Your task to perform on an android device: check android version Image 0: 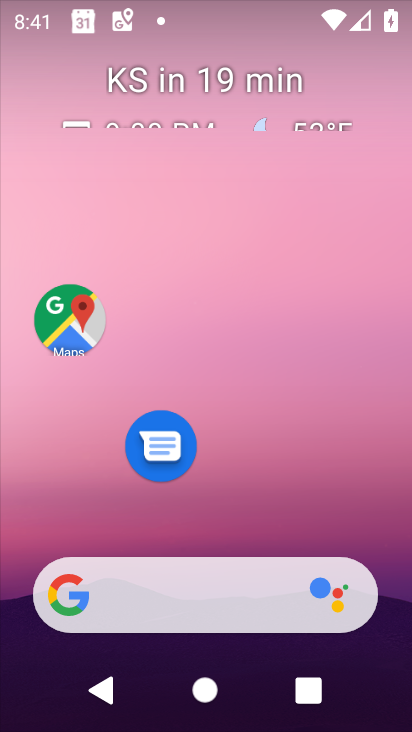
Step 0: drag from (219, 558) to (259, 6)
Your task to perform on an android device: check android version Image 1: 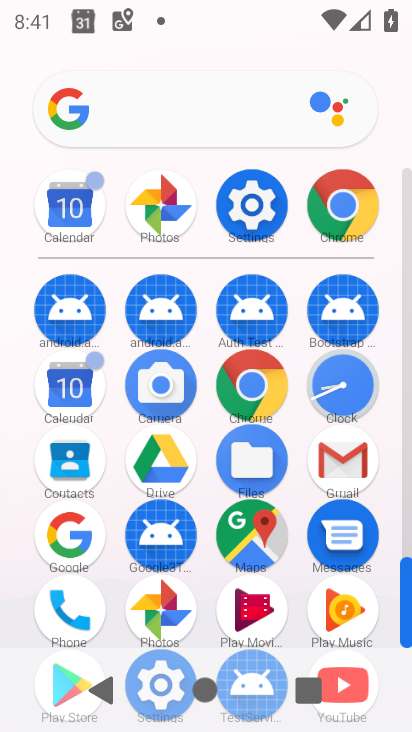
Step 1: click (251, 206)
Your task to perform on an android device: check android version Image 2: 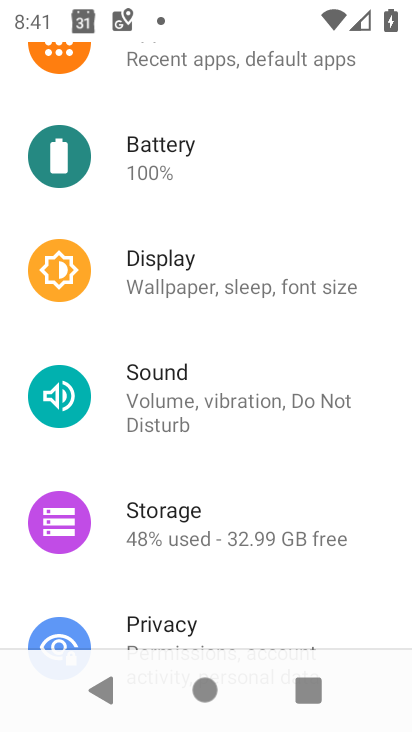
Step 2: drag from (263, 548) to (191, 10)
Your task to perform on an android device: check android version Image 3: 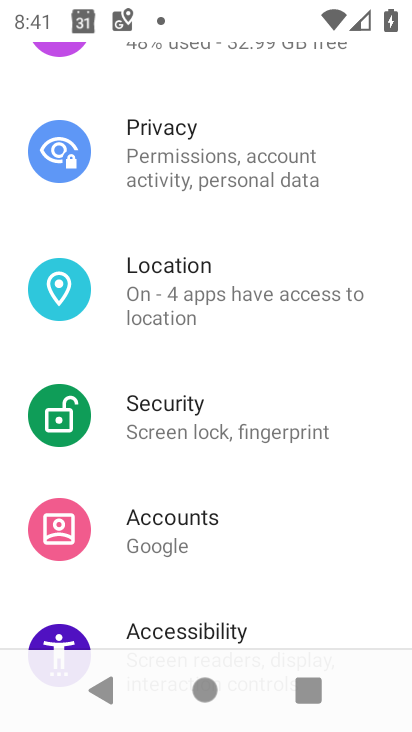
Step 3: drag from (202, 558) to (183, 21)
Your task to perform on an android device: check android version Image 4: 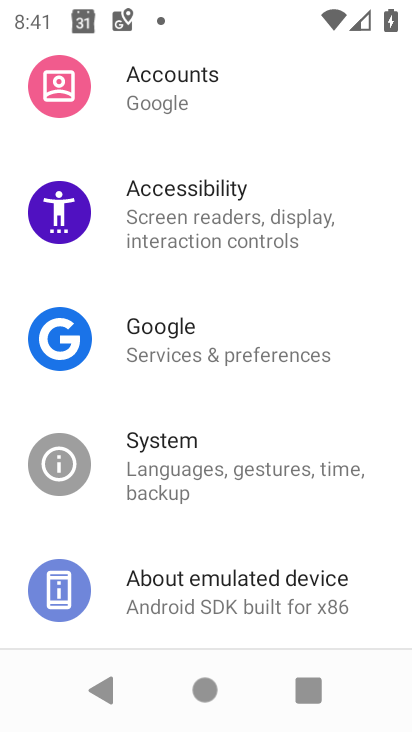
Step 4: click (206, 590)
Your task to perform on an android device: check android version Image 5: 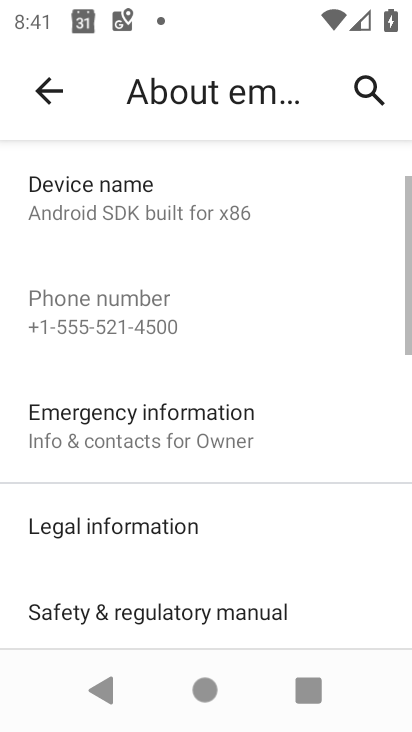
Step 5: drag from (199, 477) to (162, 71)
Your task to perform on an android device: check android version Image 6: 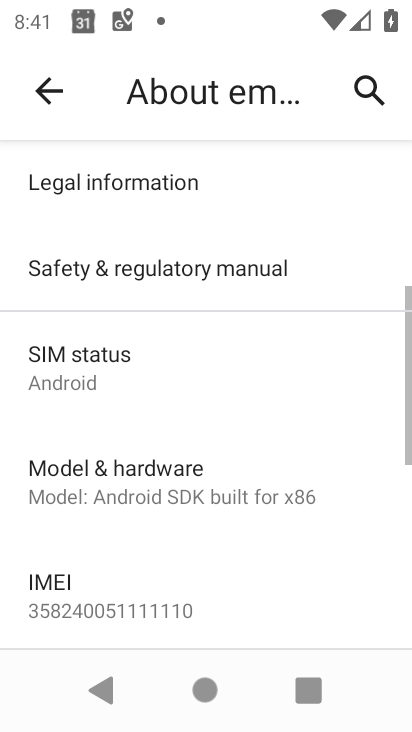
Step 6: drag from (102, 488) to (76, 196)
Your task to perform on an android device: check android version Image 7: 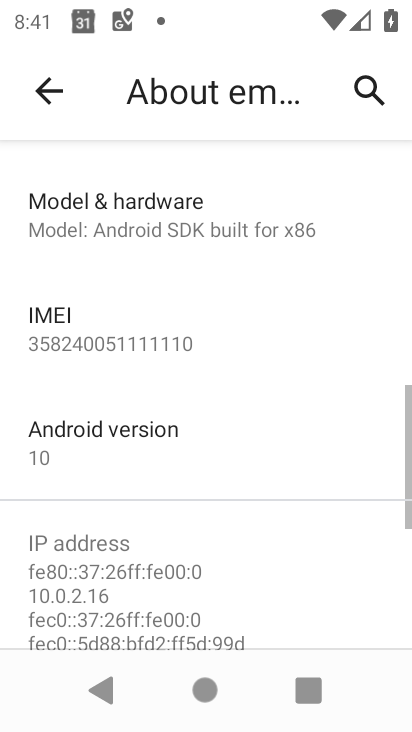
Step 7: click (112, 455)
Your task to perform on an android device: check android version Image 8: 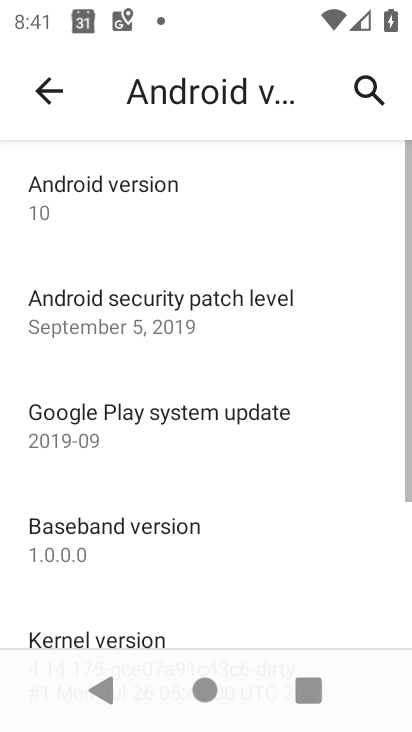
Step 8: click (132, 214)
Your task to perform on an android device: check android version Image 9: 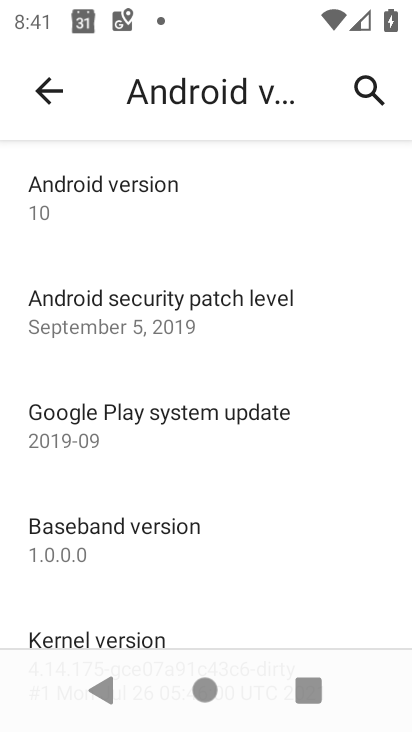
Step 9: task complete